Your task to perform on an android device: When is my next appointment? Image 0: 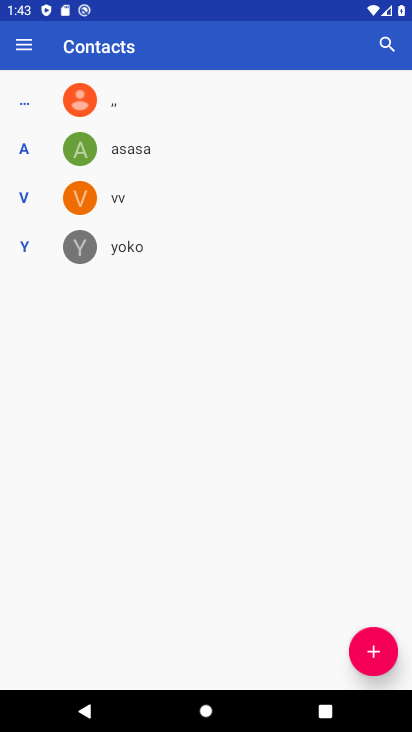
Step 0: press home button
Your task to perform on an android device: When is my next appointment? Image 1: 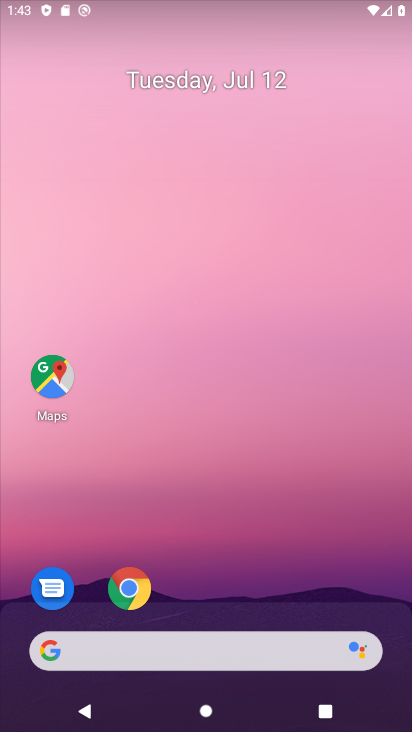
Step 1: drag from (188, 547) to (166, 54)
Your task to perform on an android device: When is my next appointment? Image 2: 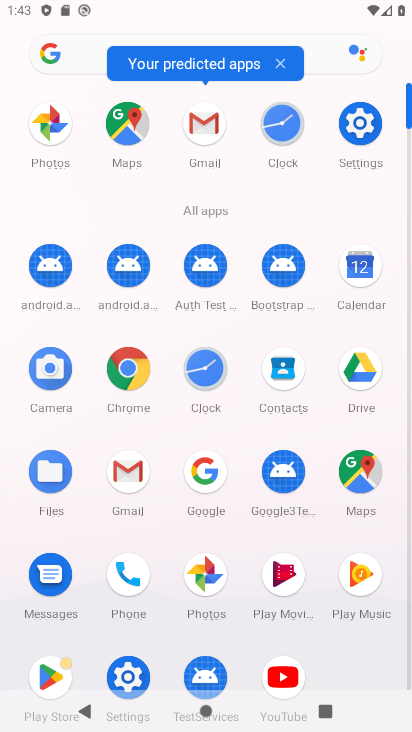
Step 2: click (356, 277)
Your task to perform on an android device: When is my next appointment? Image 3: 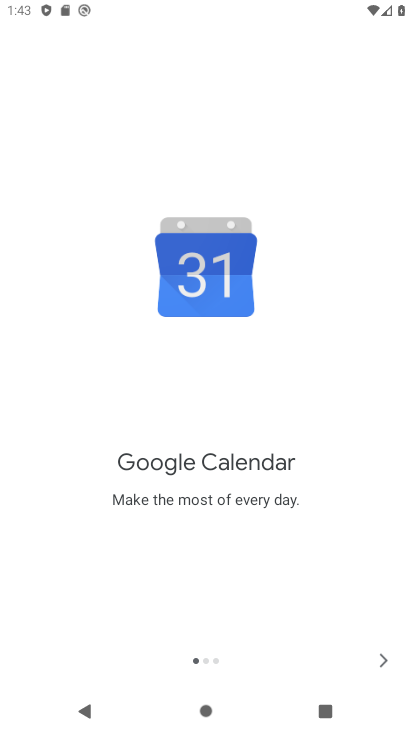
Step 3: click (381, 659)
Your task to perform on an android device: When is my next appointment? Image 4: 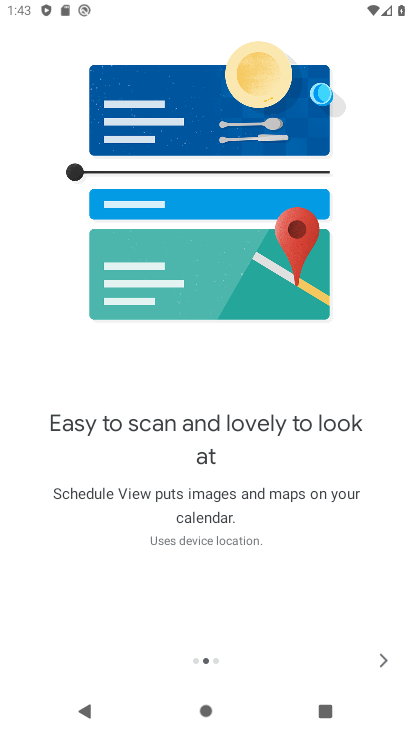
Step 4: click (381, 659)
Your task to perform on an android device: When is my next appointment? Image 5: 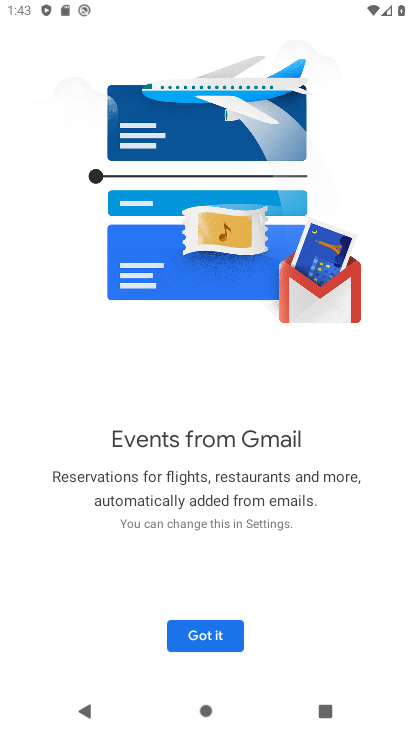
Step 5: click (180, 629)
Your task to perform on an android device: When is my next appointment? Image 6: 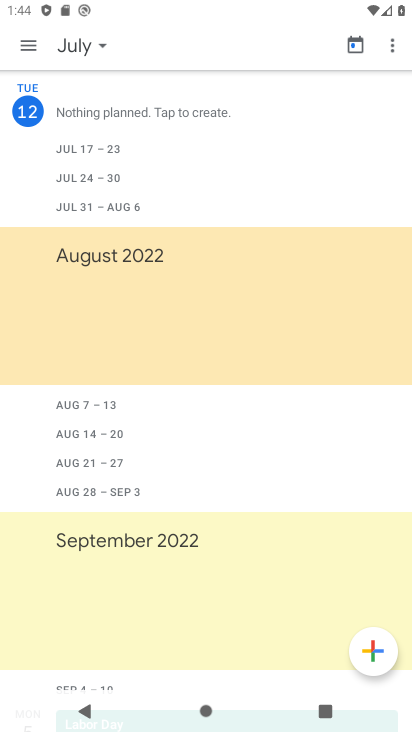
Step 6: click (26, 48)
Your task to perform on an android device: When is my next appointment? Image 7: 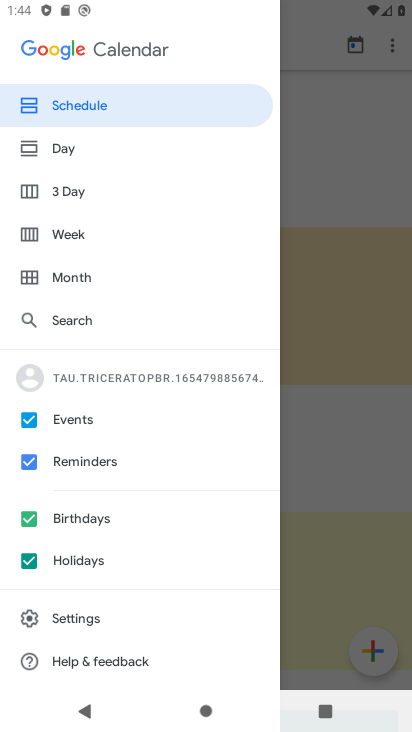
Step 7: click (84, 100)
Your task to perform on an android device: When is my next appointment? Image 8: 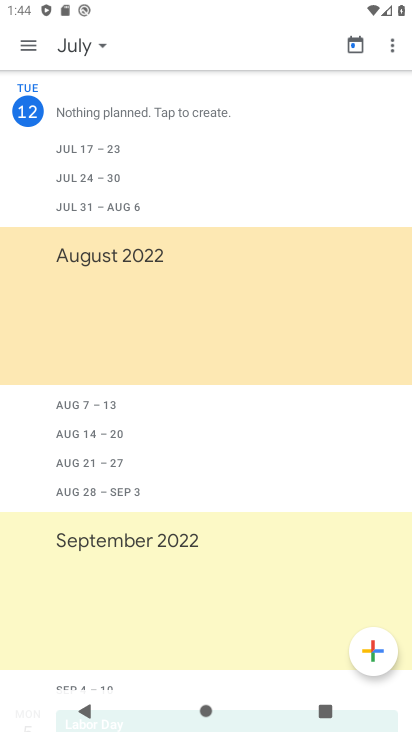
Step 8: task complete